Your task to perform on an android device: change the upload size in google photos Image 0: 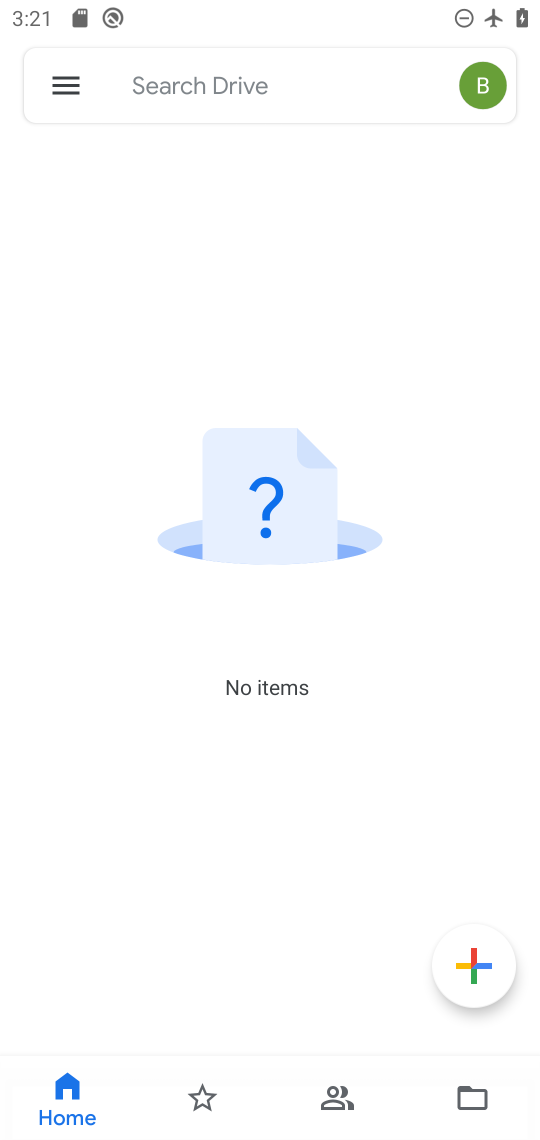
Step 0: press back button
Your task to perform on an android device: change the upload size in google photos Image 1: 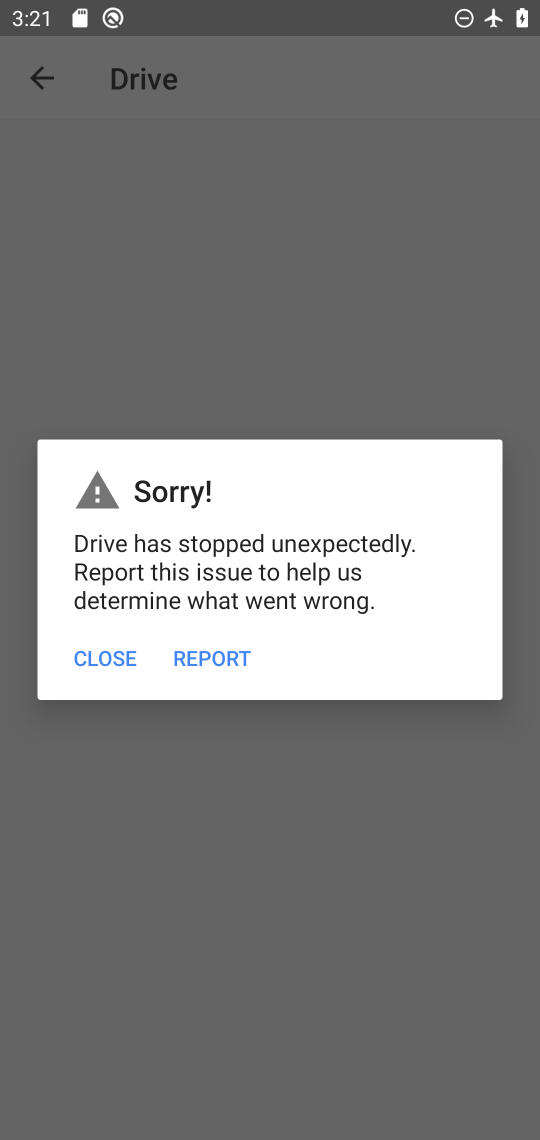
Step 1: press home button
Your task to perform on an android device: change the upload size in google photos Image 2: 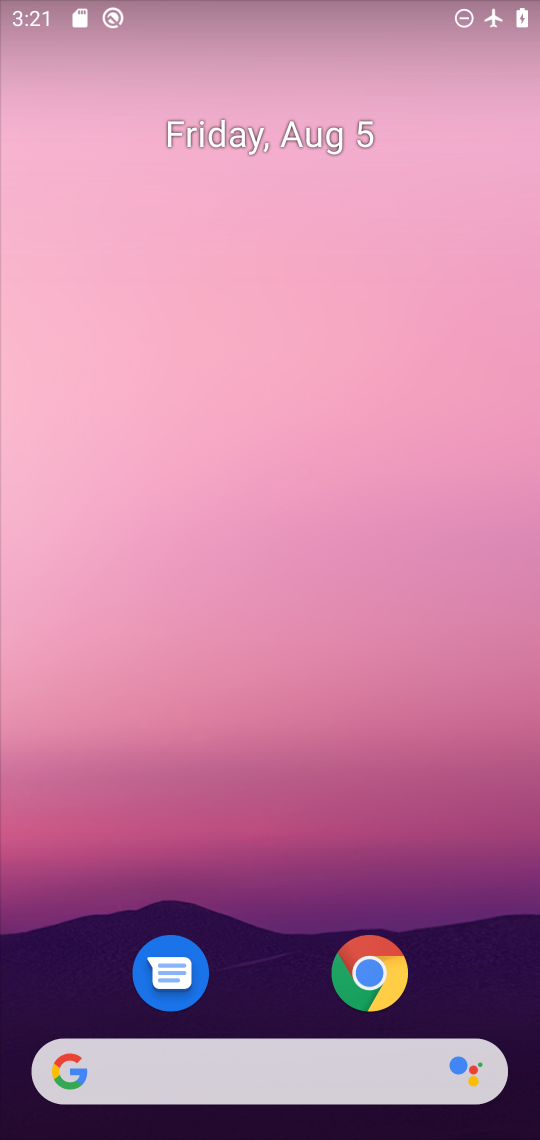
Step 2: drag from (258, 1021) to (200, 217)
Your task to perform on an android device: change the upload size in google photos Image 3: 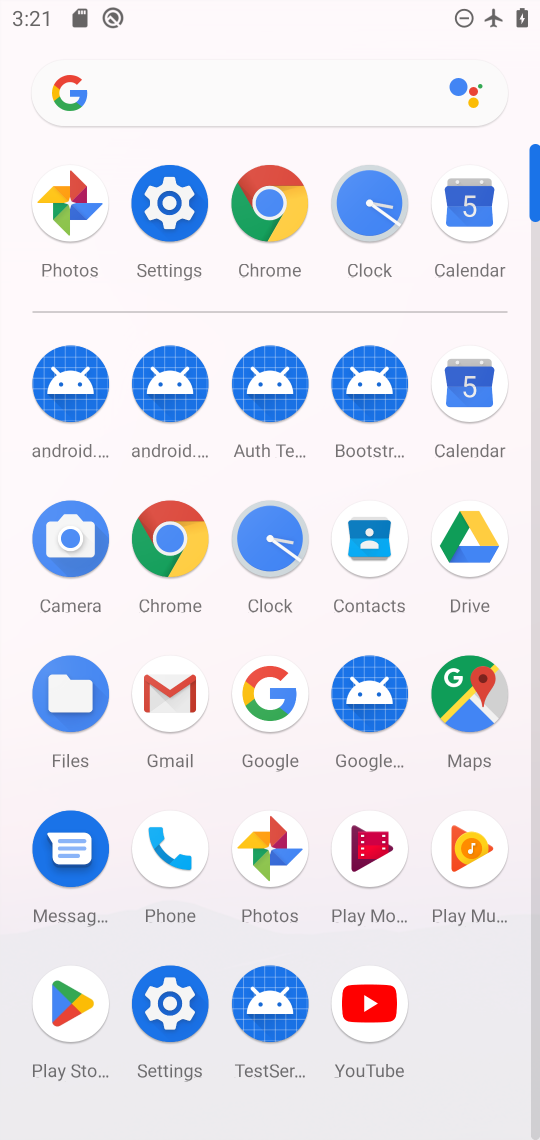
Step 3: click (248, 877)
Your task to perform on an android device: change the upload size in google photos Image 4: 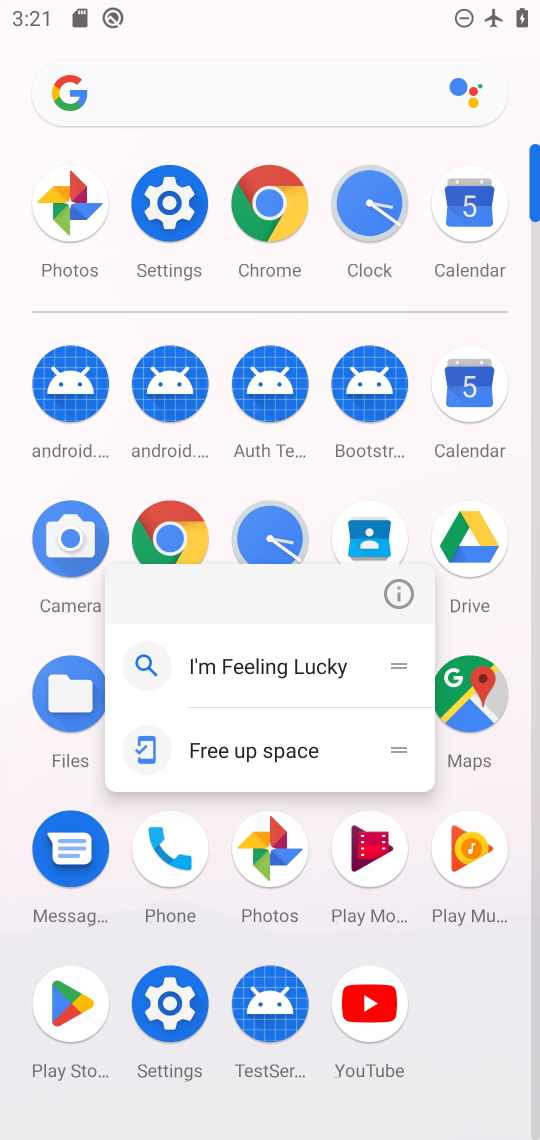
Step 4: click (276, 843)
Your task to perform on an android device: change the upload size in google photos Image 5: 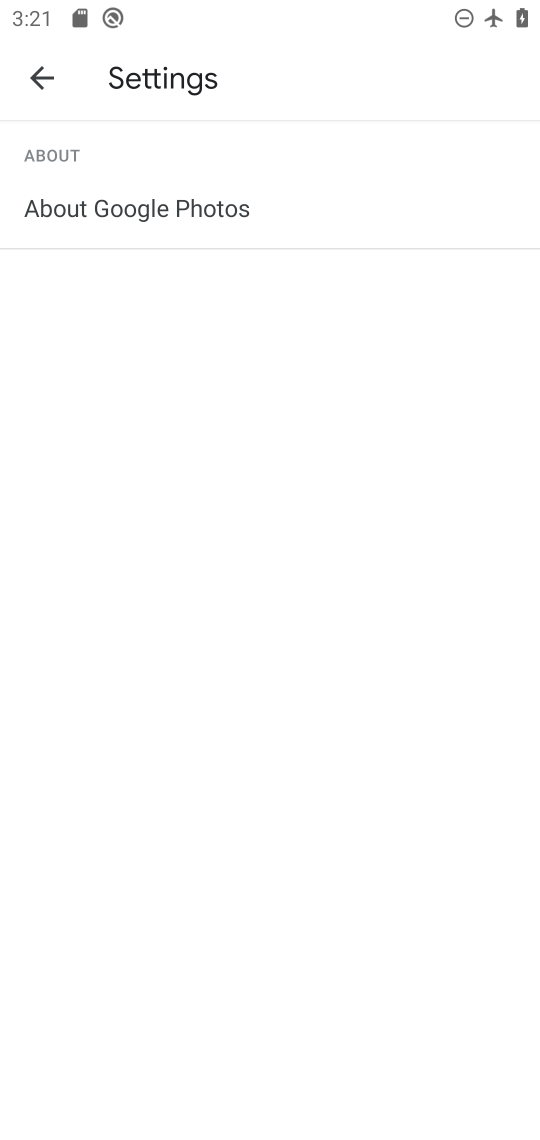
Step 5: click (27, 70)
Your task to perform on an android device: change the upload size in google photos Image 6: 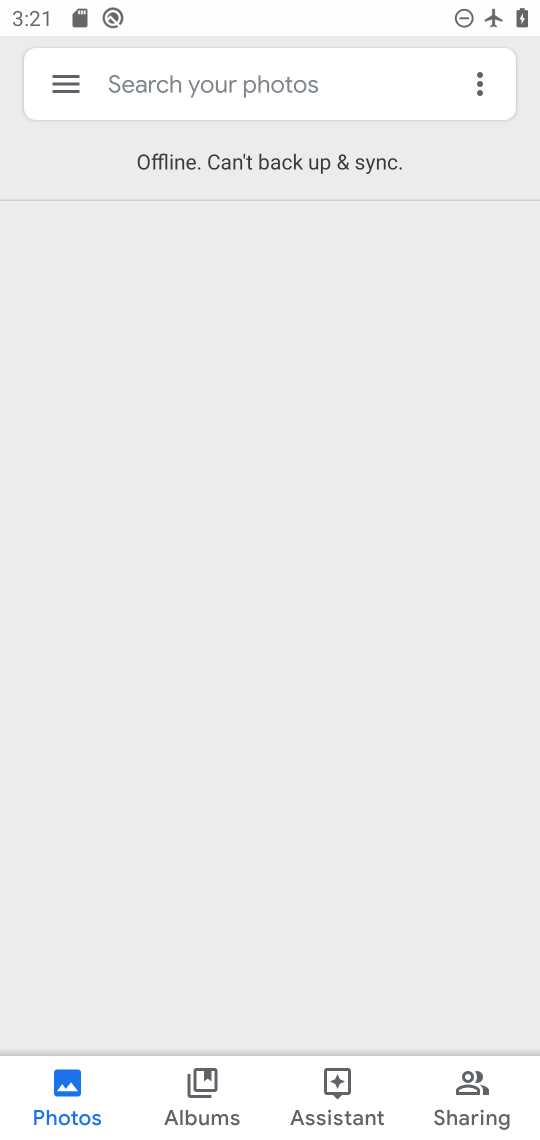
Step 6: click (28, 68)
Your task to perform on an android device: change the upload size in google photos Image 7: 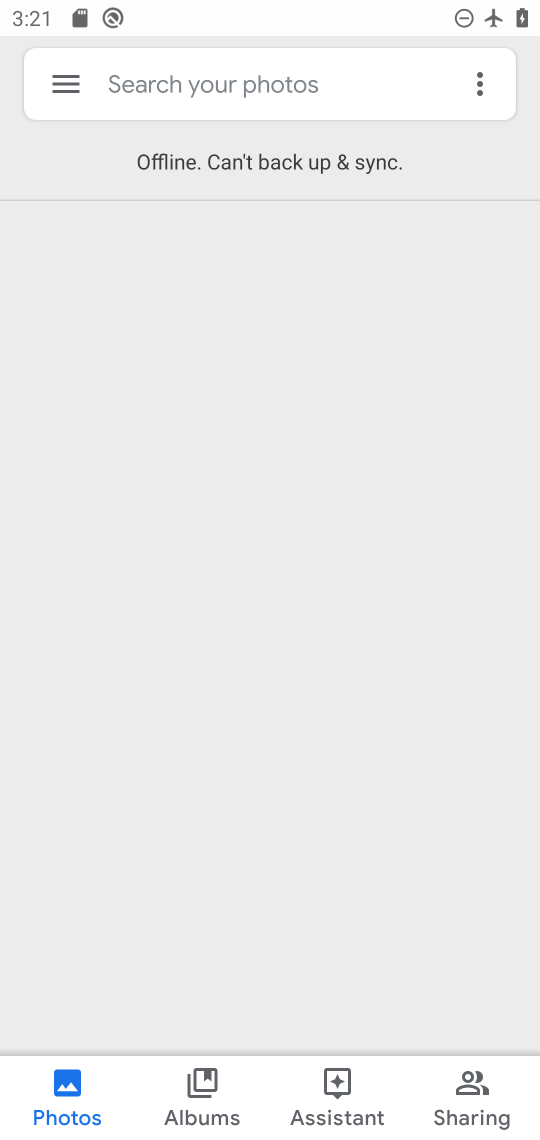
Step 7: click (40, 89)
Your task to perform on an android device: change the upload size in google photos Image 8: 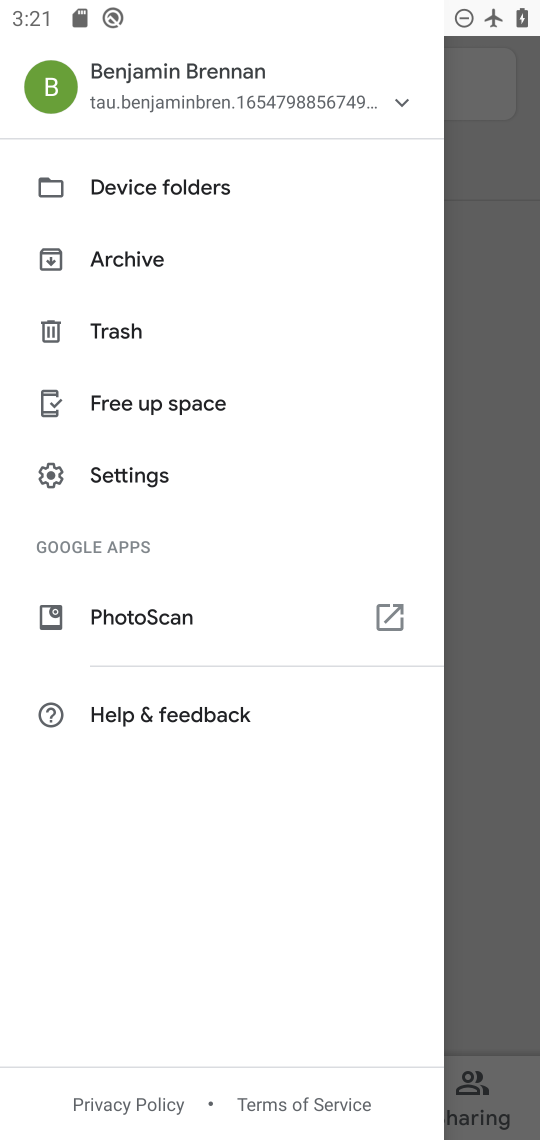
Step 8: click (104, 498)
Your task to perform on an android device: change the upload size in google photos Image 9: 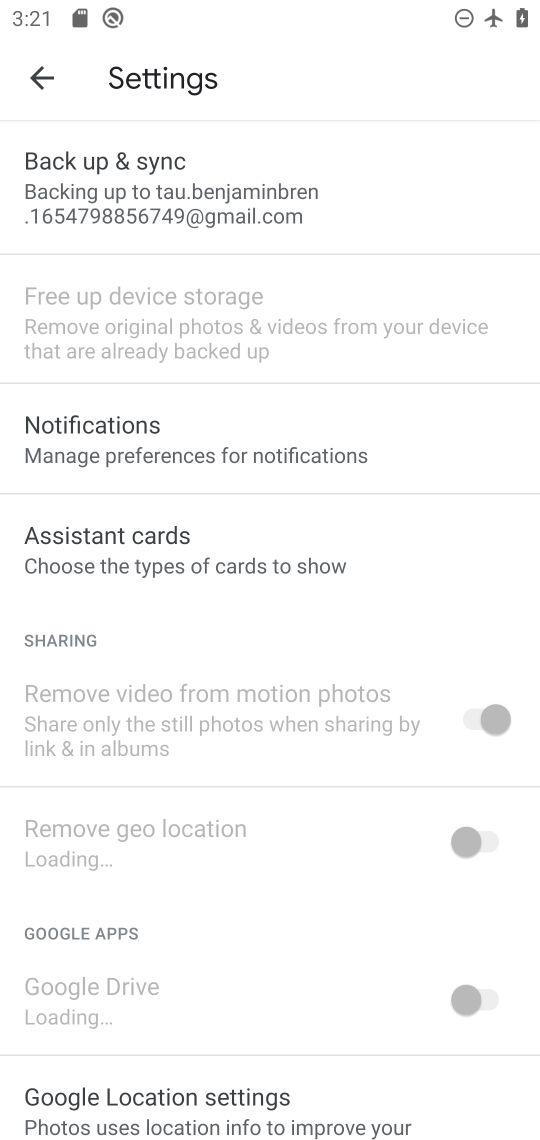
Step 9: click (130, 210)
Your task to perform on an android device: change the upload size in google photos Image 10: 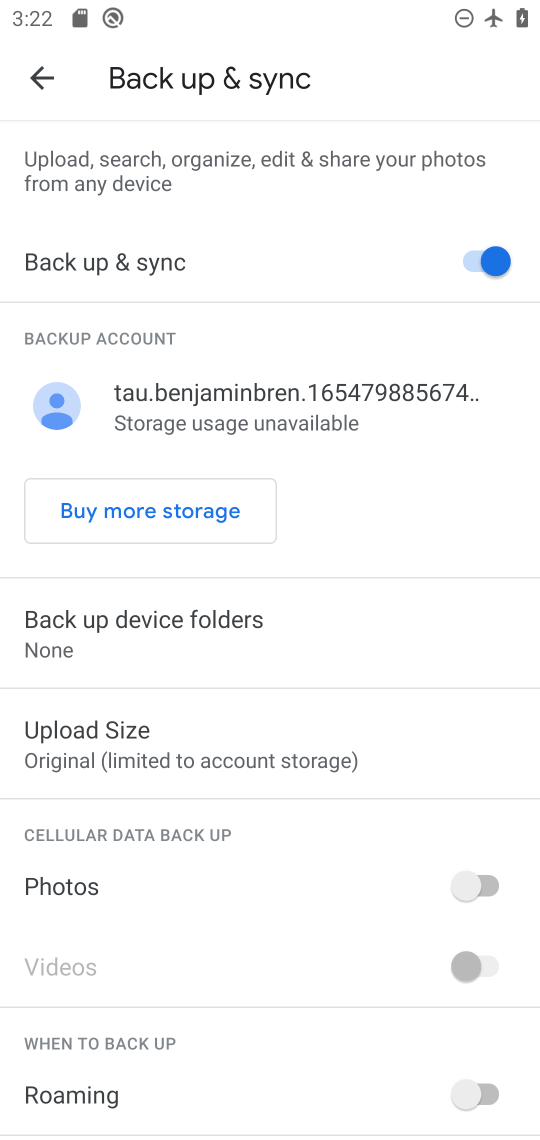
Step 10: click (176, 738)
Your task to perform on an android device: change the upload size in google photos Image 11: 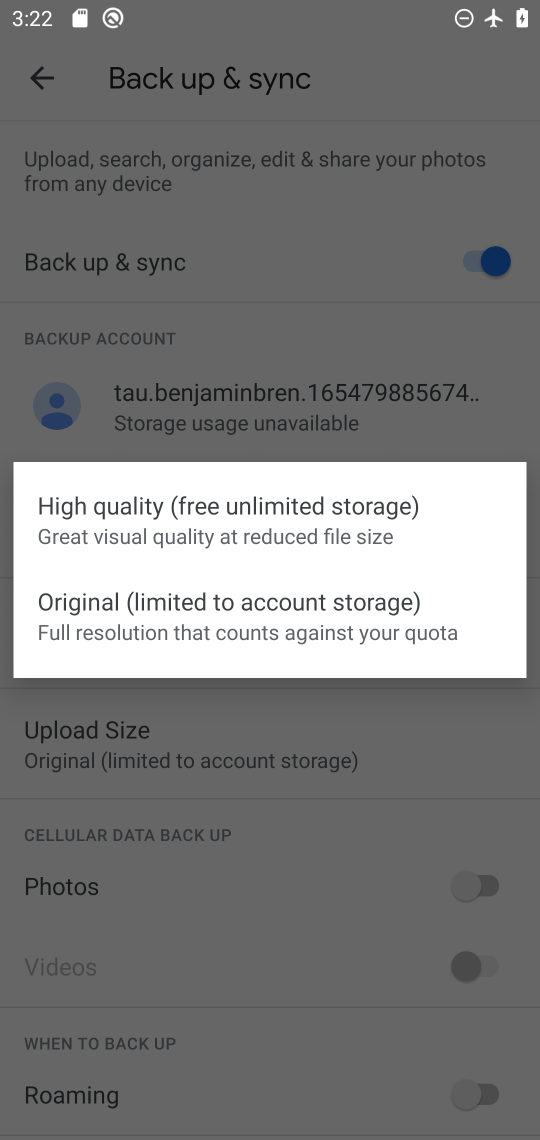
Step 11: click (122, 654)
Your task to perform on an android device: change the upload size in google photos Image 12: 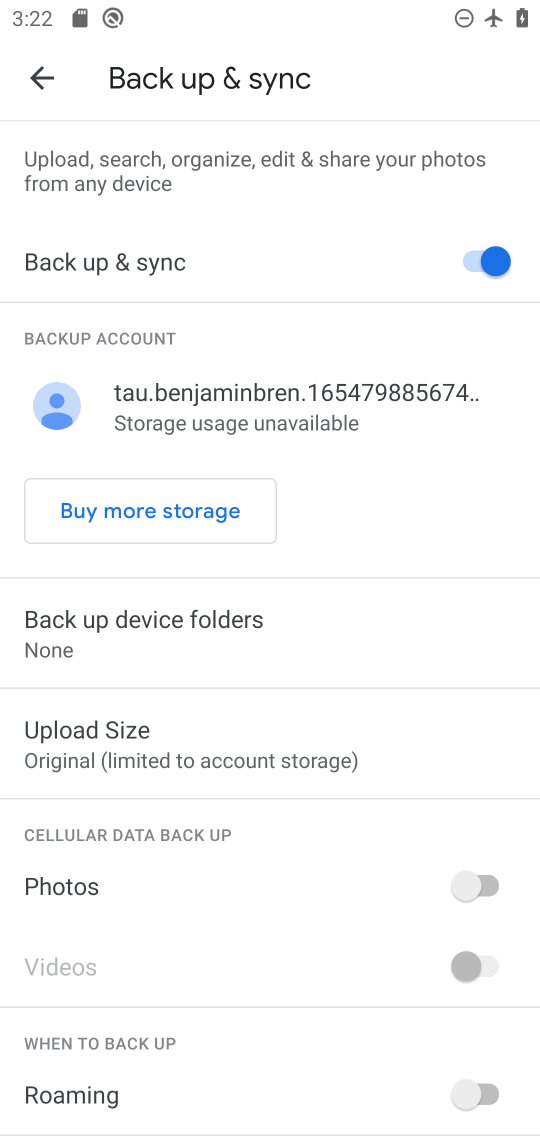
Step 12: click (129, 764)
Your task to perform on an android device: change the upload size in google photos Image 13: 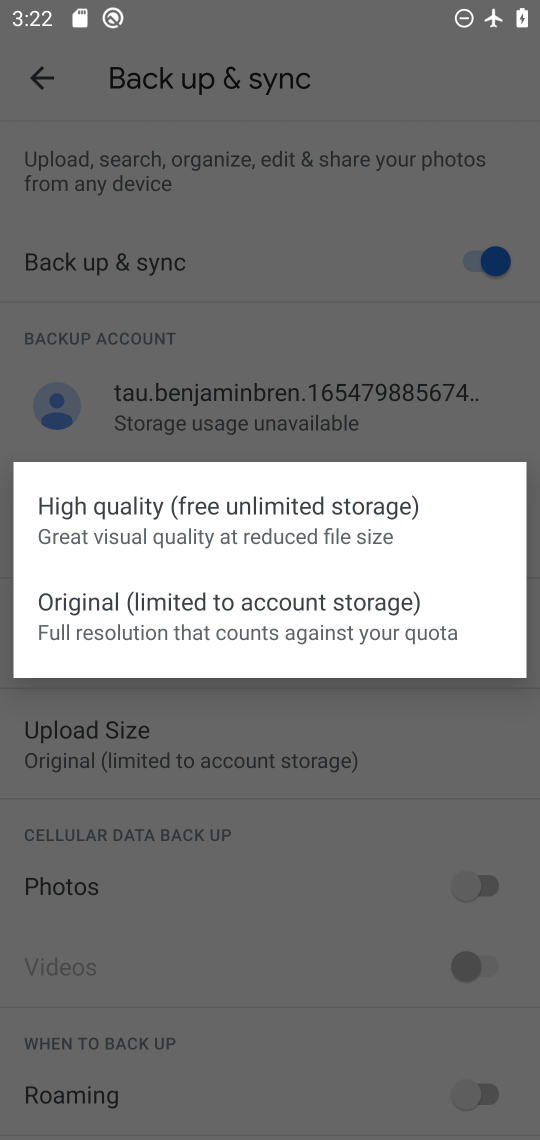
Step 13: click (104, 539)
Your task to perform on an android device: change the upload size in google photos Image 14: 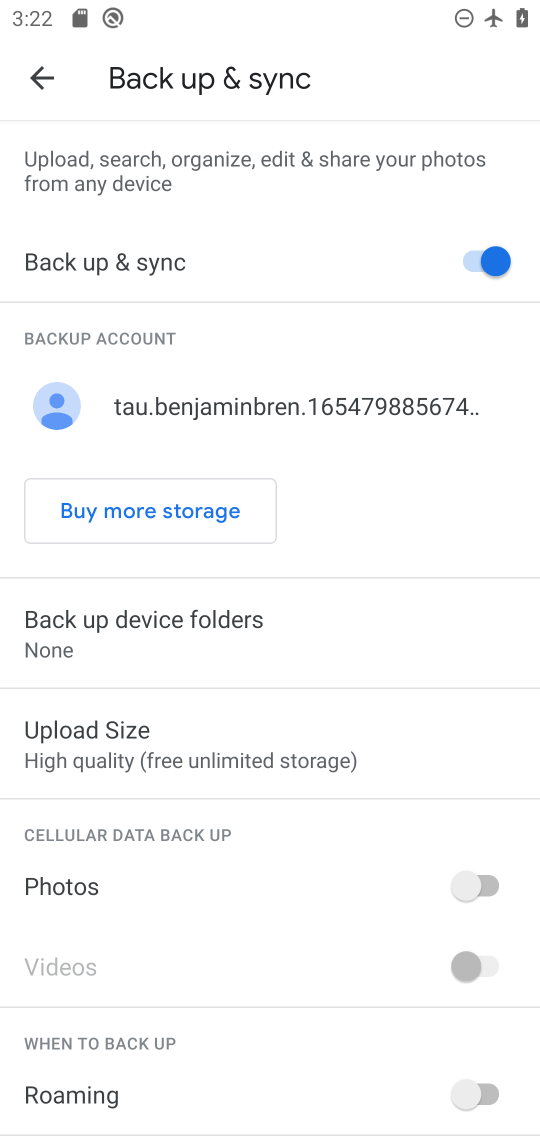
Step 14: task complete